Your task to perform on an android device: change alarm snooze length Image 0: 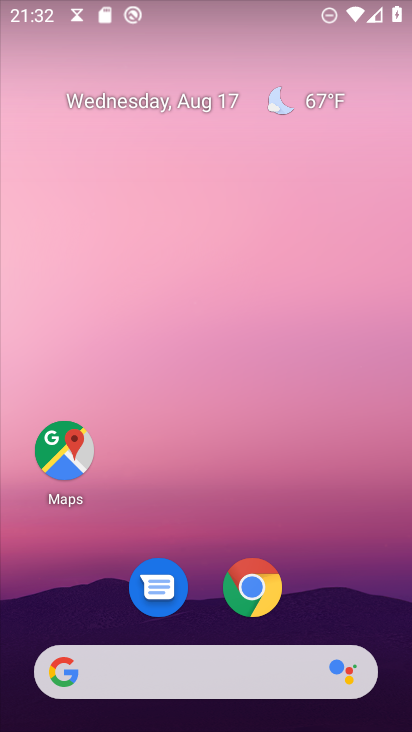
Step 0: drag from (16, 657) to (286, 148)
Your task to perform on an android device: change alarm snooze length Image 1: 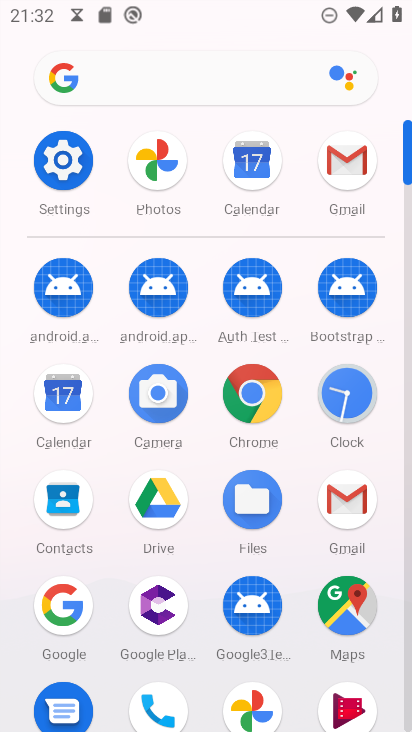
Step 1: click (350, 406)
Your task to perform on an android device: change alarm snooze length Image 2: 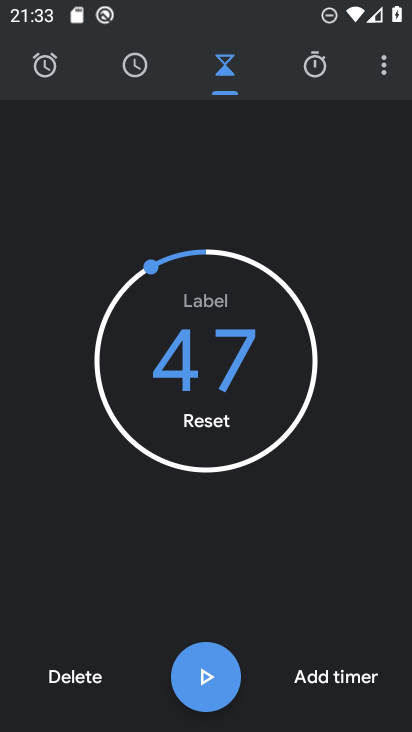
Step 2: click (43, 67)
Your task to perform on an android device: change alarm snooze length Image 3: 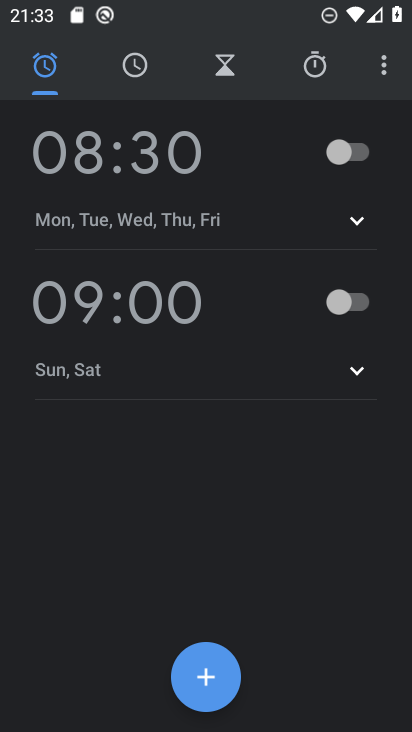
Step 3: click (385, 55)
Your task to perform on an android device: change alarm snooze length Image 4: 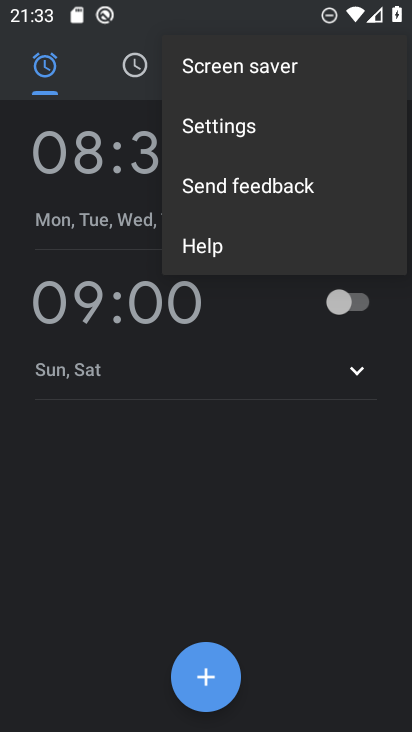
Step 4: click (226, 130)
Your task to perform on an android device: change alarm snooze length Image 5: 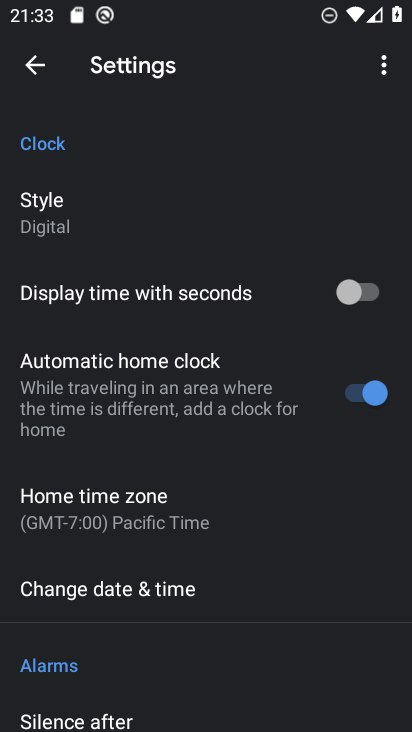
Step 5: click (278, 653)
Your task to perform on an android device: change alarm snooze length Image 6: 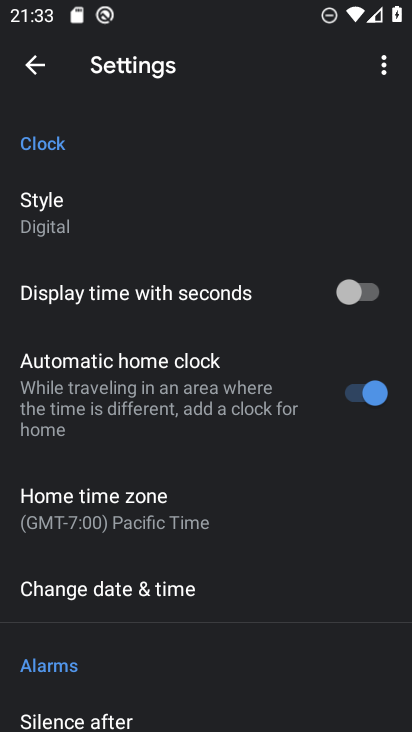
Step 6: click (304, 659)
Your task to perform on an android device: change alarm snooze length Image 7: 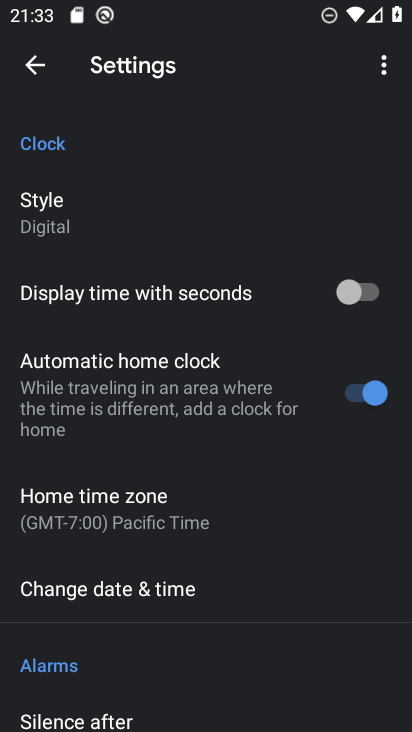
Step 7: drag from (302, 667) to (314, 170)
Your task to perform on an android device: change alarm snooze length Image 8: 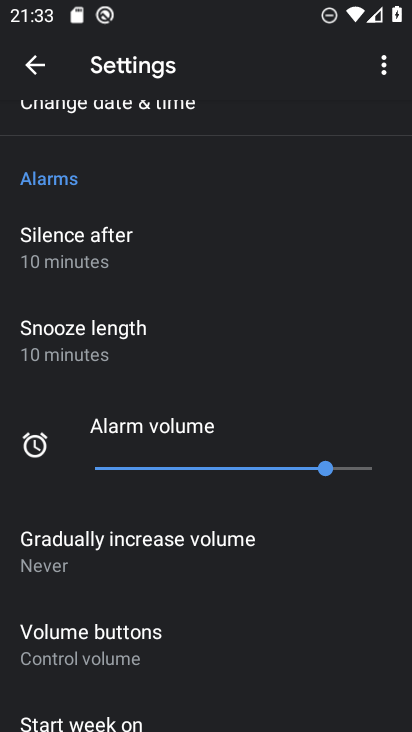
Step 8: click (111, 348)
Your task to perform on an android device: change alarm snooze length Image 9: 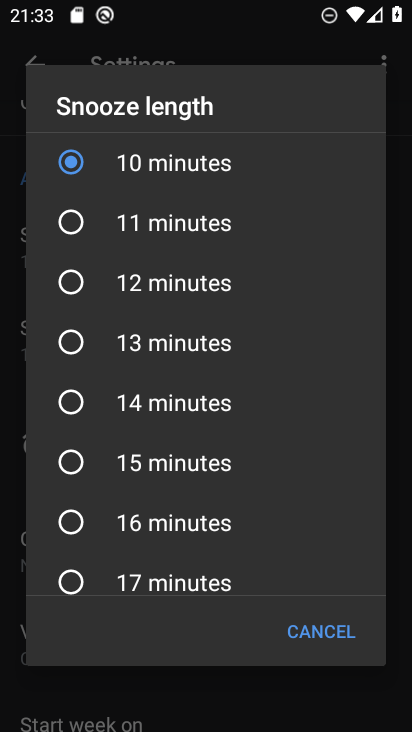
Step 9: click (71, 466)
Your task to perform on an android device: change alarm snooze length Image 10: 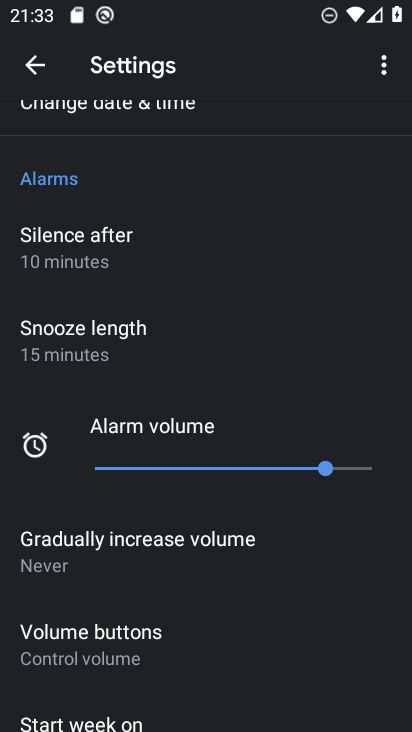
Step 10: task complete